Your task to perform on an android device: open app "Life360: Find Family & Friends" (install if not already installed) Image 0: 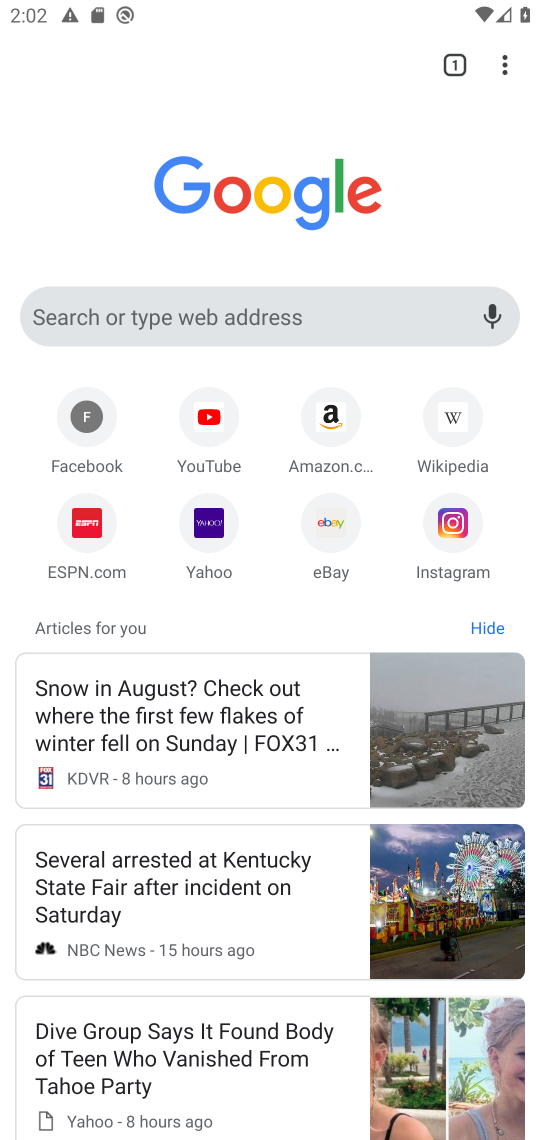
Step 0: press home button
Your task to perform on an android device: open app "Life360: Find Family & Friends" (install if not already installed) Image 1: 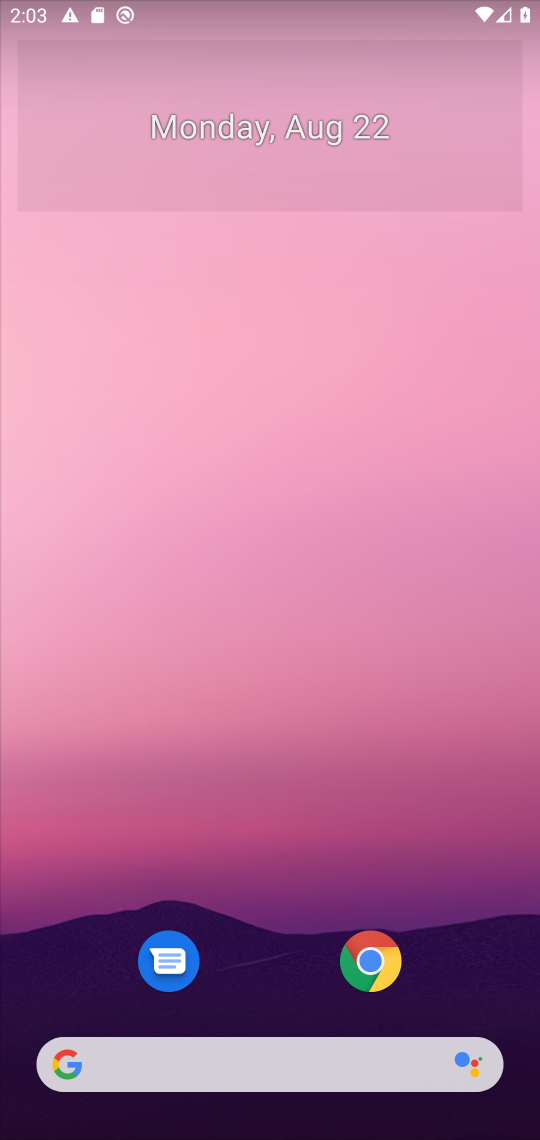
Step 1: drag from (454, 956) to (456, 146)
Your task to perform on an android device: open app "Life360: Find Family & Friends" (install if not already installed) Image 2: 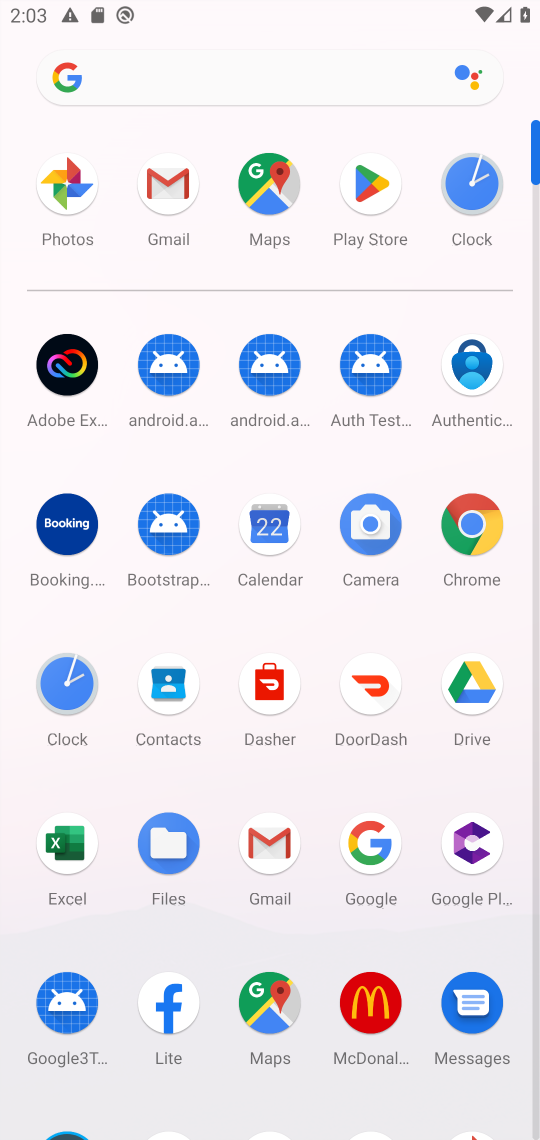
Step 2: click (356, 174)
Your task to perform on an android device: open app "Life360: Find Family & Friends" (install if not already installed) Image 3: 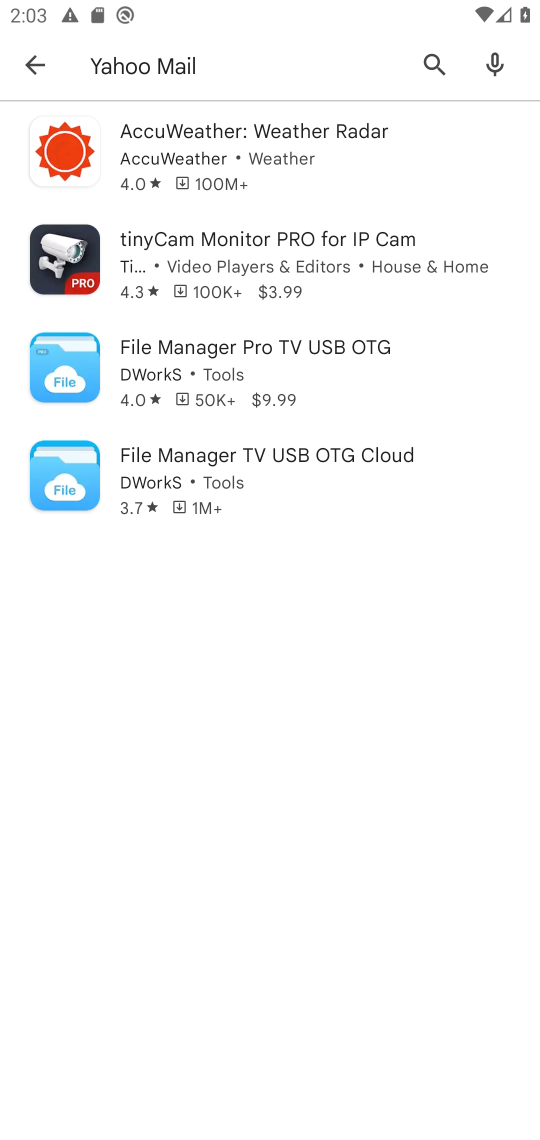
Step 3: press back button
Your task to perform on an android device: open app "Life360: Find Family & Friends" (install if not already installed) Image 4: 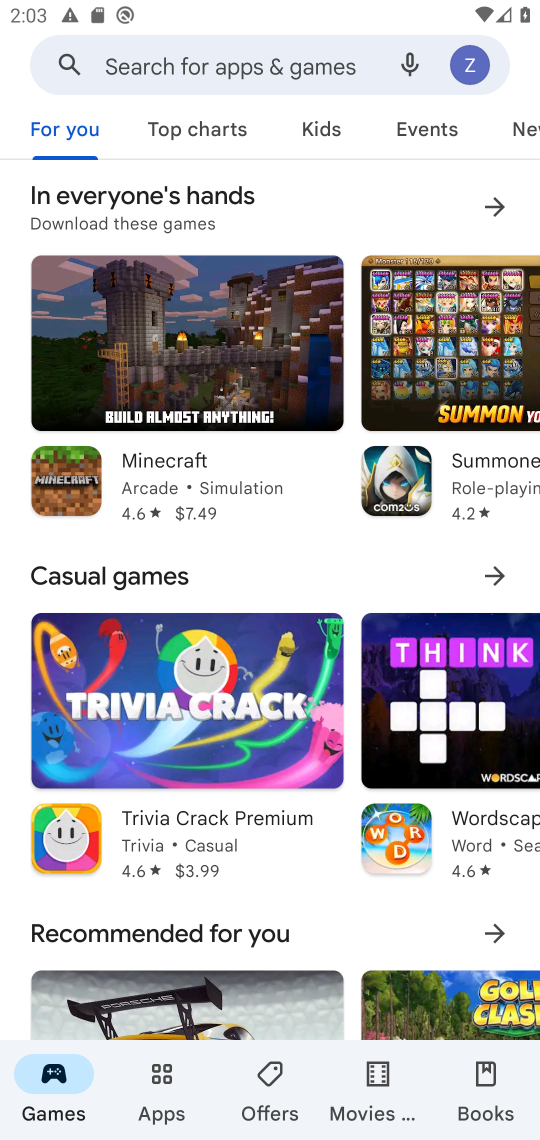
Step 4: click (334, 53)
Your task to perform on an android device: open app "Life360: Find Family & Friends" (install if not already installed) Image 5: 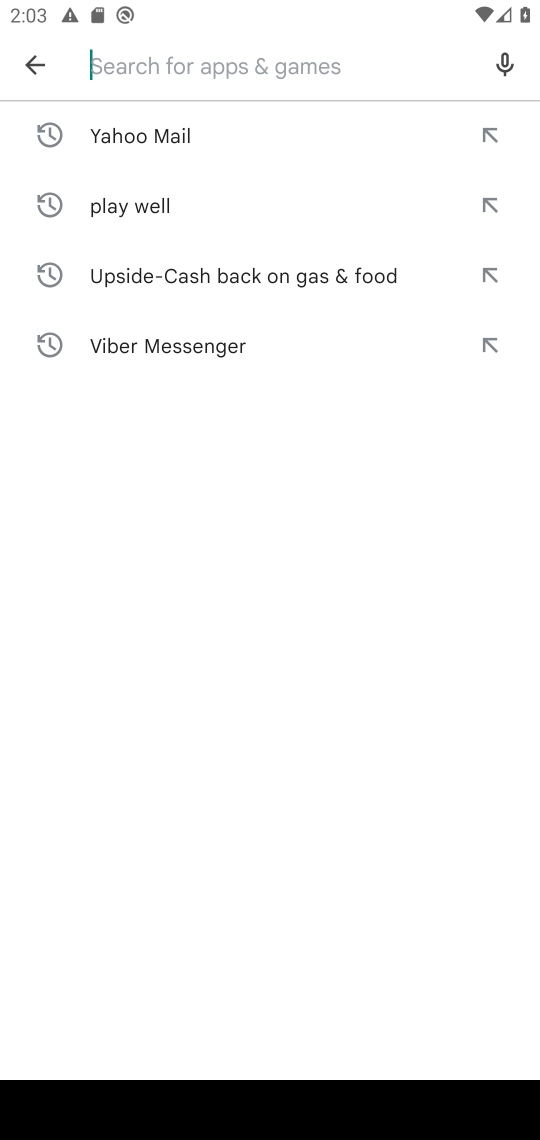
Step 5: type "Life360: Find Family & Friends"
Your task to perform on an android device: open app "Life360: Find Family & Friends" (install if not already installed) Image 6: 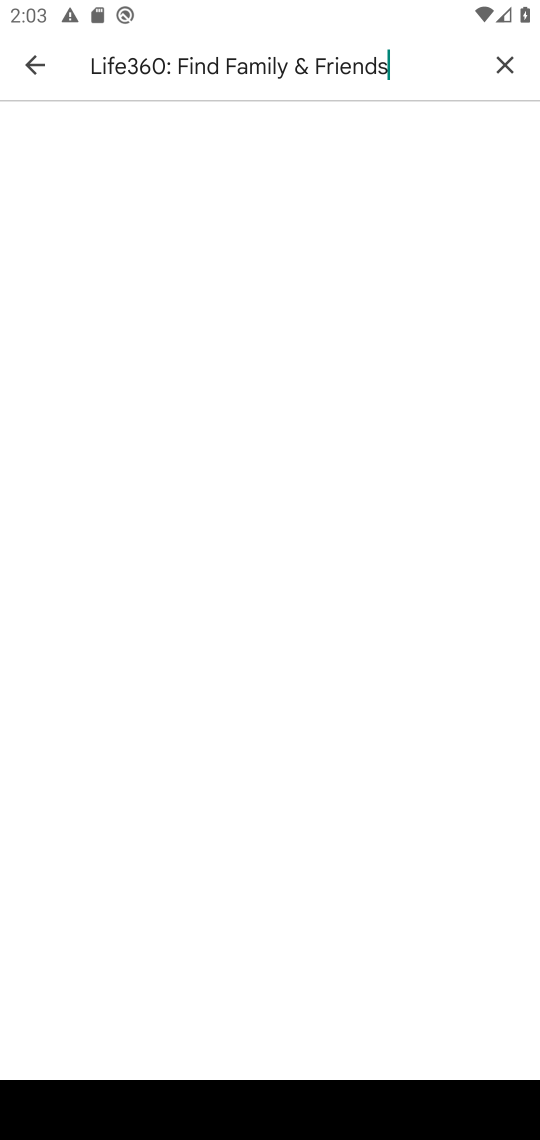
Step 6: press enter
Your task to perform on an android device: open app "Life360: Find Family & Friends" (install if not already installed) Image 7: 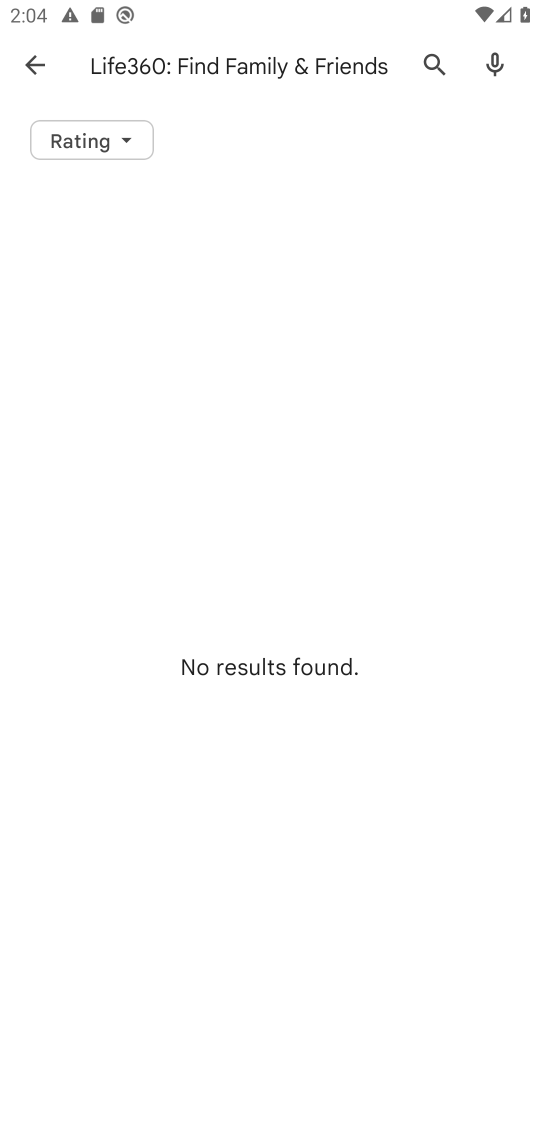
Step 7: task complete